Your task to perform on an android device: turn on showing notifications on the lock screen Image 0: 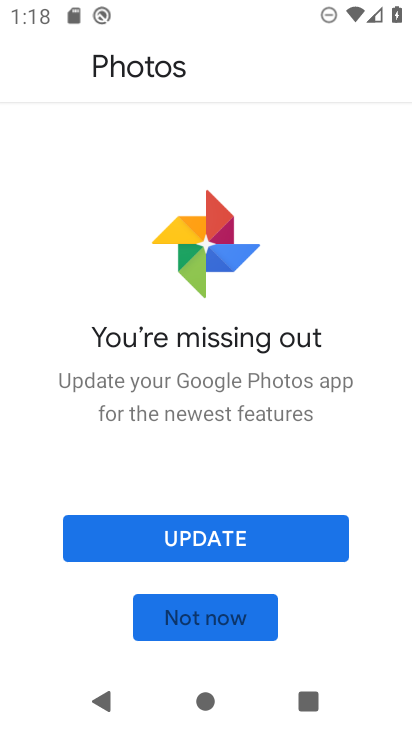
Step 0: press home button
Your task to perform on an android device: turn on showing notifications on the lock screen Image 1: 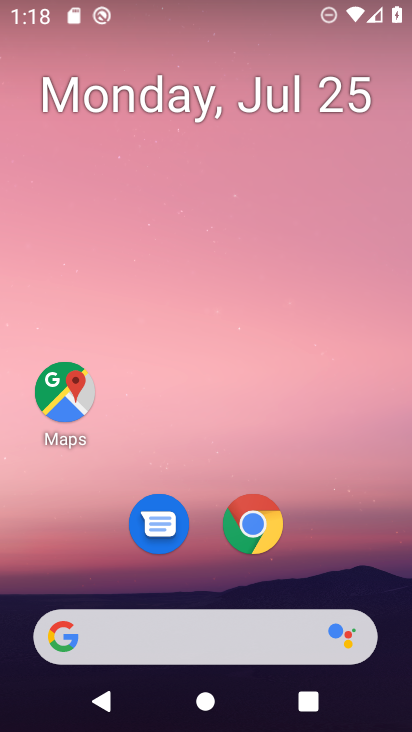
Step 1: drag from (144, 625) to (352, 21)
Your task to perform on an android device: turn on showing notifications on the lock screen Image 2: 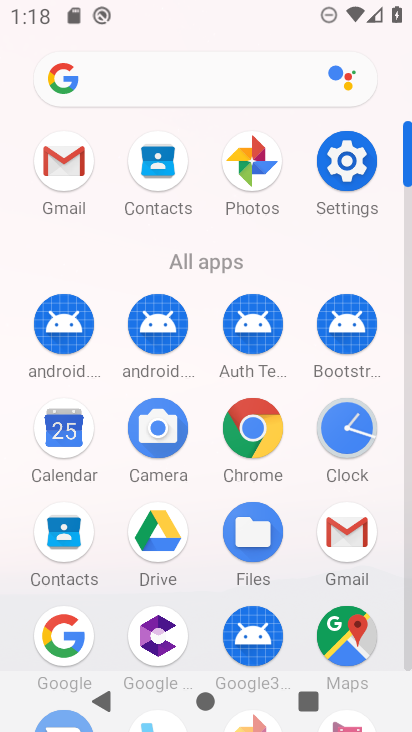
Step 2: click (349, 158)
Your task to perform on an android device: turn on showing notifications on the lock screen Image 3: 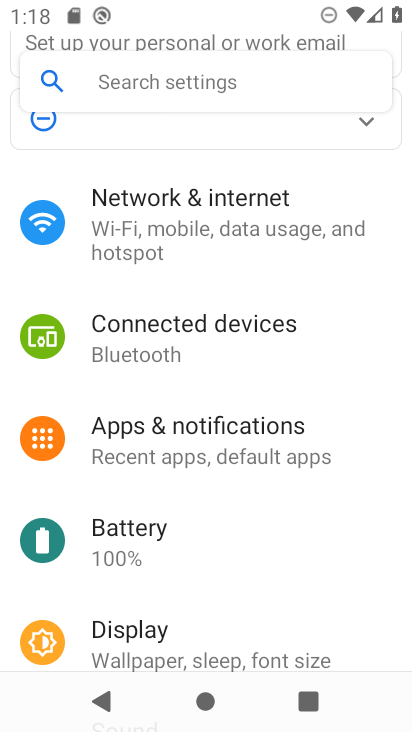
Step 3: click (235, 438)
Your task to perform on an android device: turn on showing notifications on the lock screen Image 4: 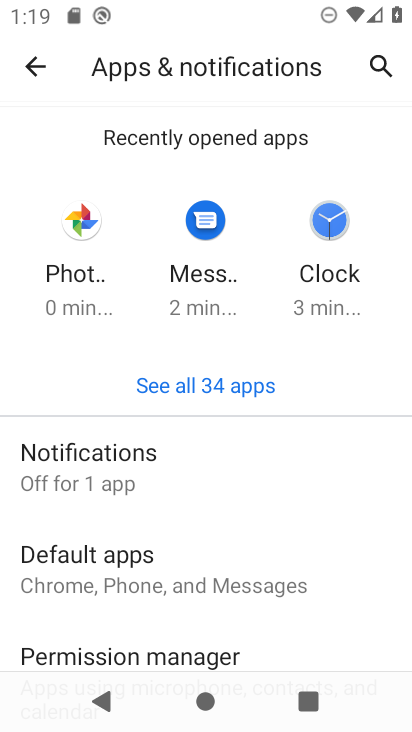
Step 4: click (106, 473)
Your task to perform on an android device: turn on showing notifications on the lock screen Image 5: 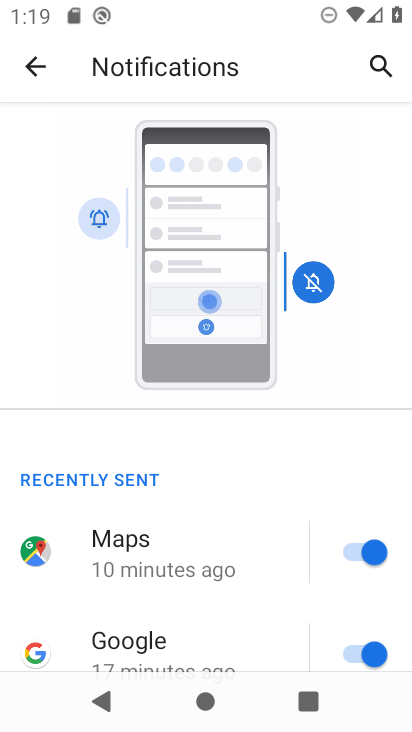
Step 5: drag from (233, 606) to (371, 0)
Your task to perform on an android device: turn on showing notifications on the lock screen Image 6: 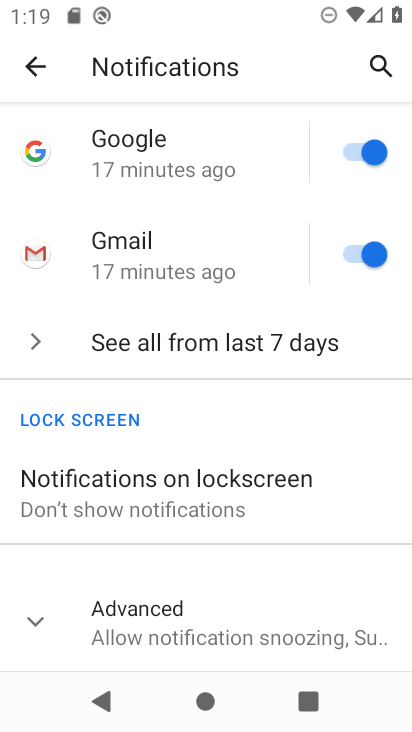
Step 6: click (183, 494)
Your task to perform on an android device: turn on showing notifications on the lock screen Image 7: 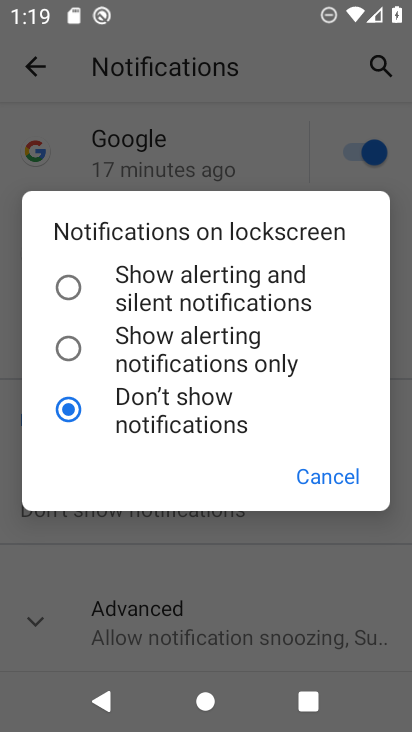
Step 7: click (62, 286)
Your task to perform on an android device: turn on showing notifications on the lock screen Image 8: 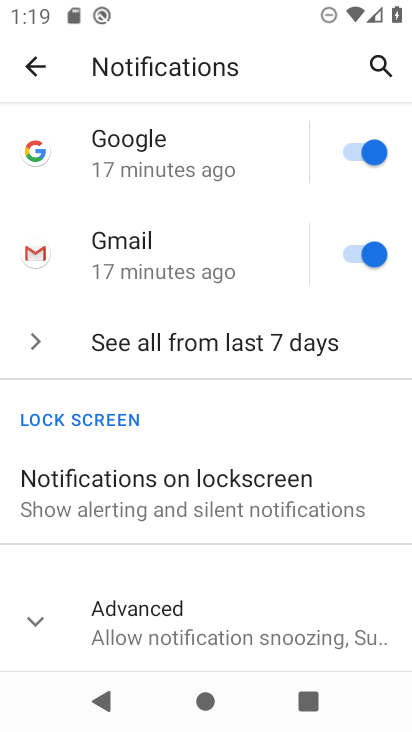
Step 8: task complete